Your task to perform on an android device: Open Google Chrome and click the shortcut for Amazon.com Image 0: 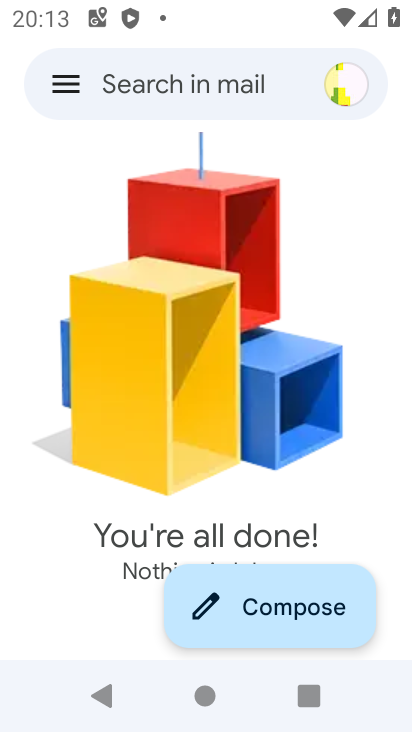
Step 0: press home button
Your task to perform on an android device: Open Google Chrome and click the shortcut for Amazon.com Image 1: 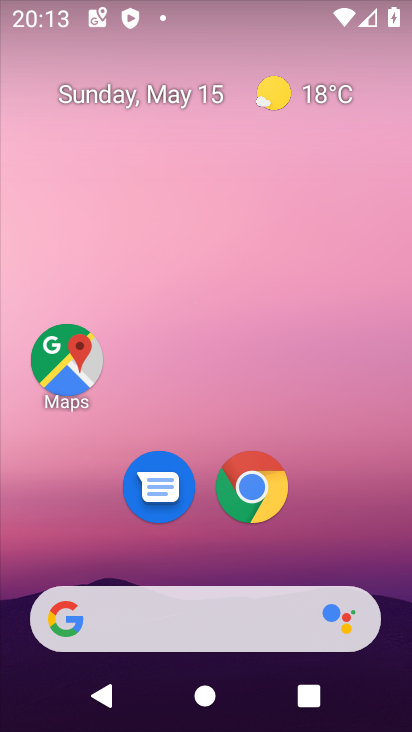
Step 1: click (259, 484)
Your task to perform on an android device: Open Google Chrome and click the shortcut for Amazon.com Image 2: 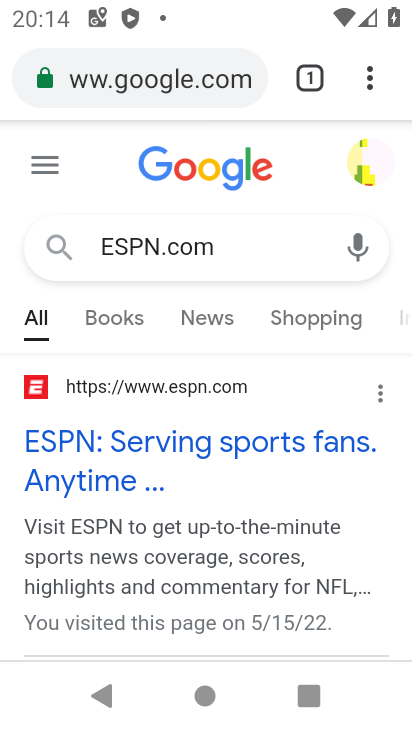
Step 2: click (368, 77)
Your task to perform on an android device: Open Google Chrome and click the shortcut for Amazon.com Image 3: 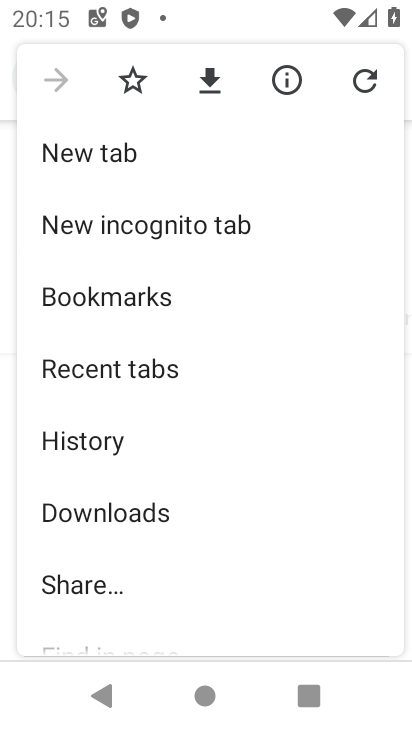
Step 3: click (90, 150)
Your task to perform on an android device: Open Google Chrome and click the shortcut for Amazon.com Image 4: 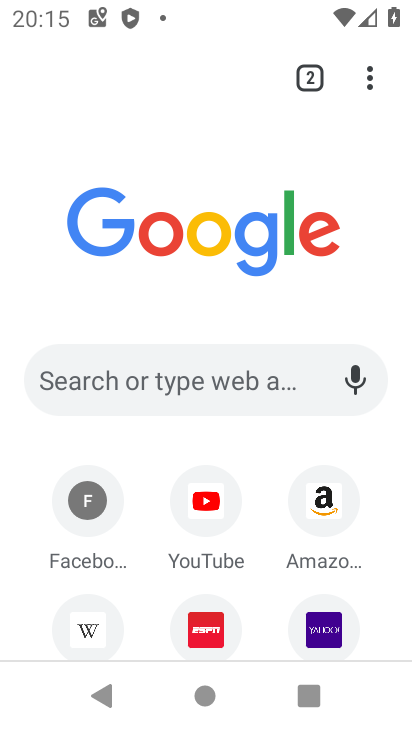
Step 4: click (340, 503)
Your task to perform on an android device: Open Google Chrome and click the shortcut for Amazon.com Image 5: 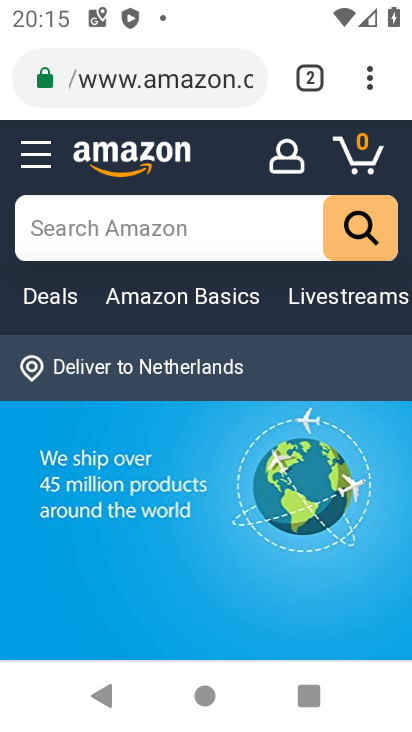
Step 5: task complete